Your task to perform on an android device: Show me the alarms in the clock app Image 0: 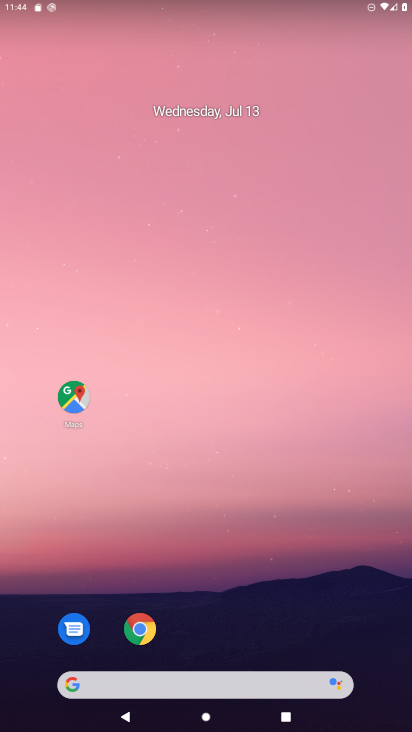
Step 0: drag from (381, 703) to (354, 202)
Your task to perform on an android device: Show me the alarms in the clock app Image 1: 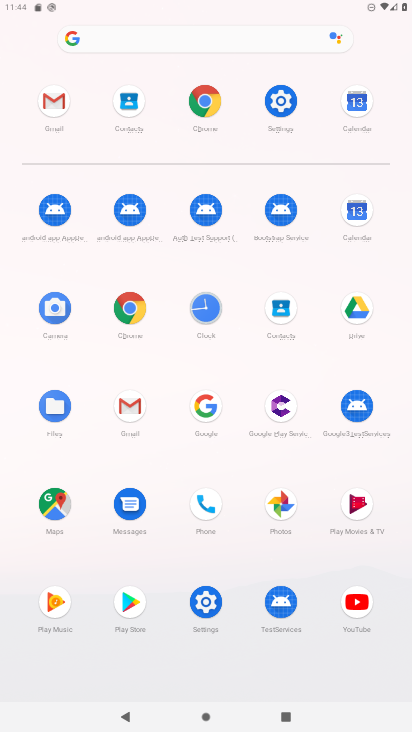
Step 1: click (205, 311)
Your task to perform on an android device: Show me the alarms in the clock app Image 2: 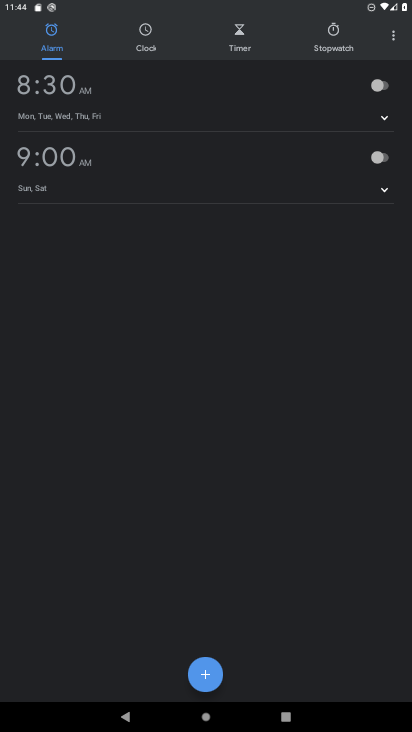
Step 2: task complete